Your task to perform on an android device: Show me the alarms in the clock app Image 0: 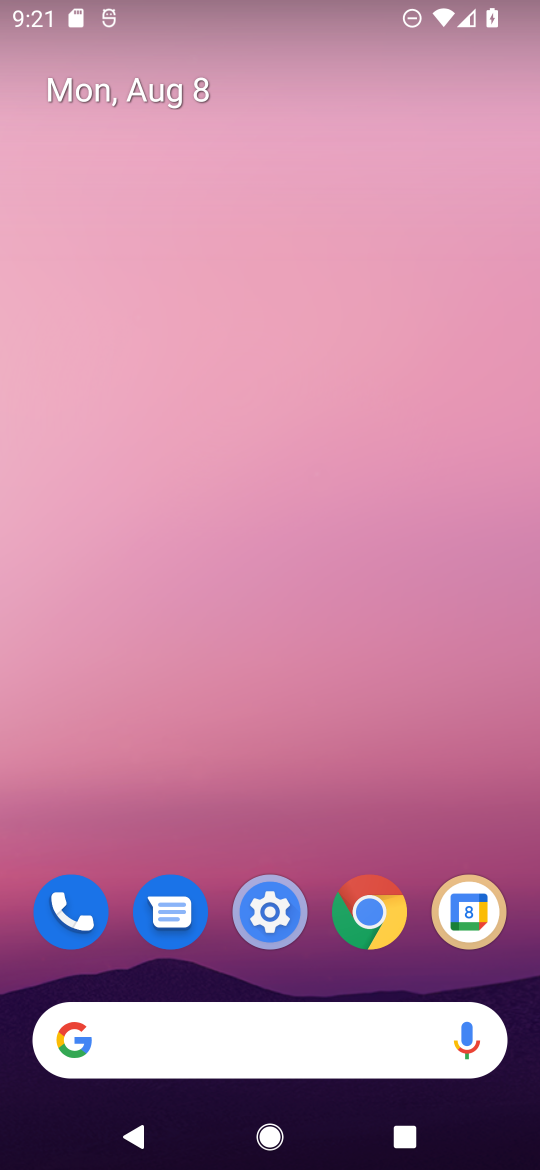
Step 0: drag from (429, 971) to (322, 447)
Your task to perform on an android device: Show me the alarms in the clock app Image 1: 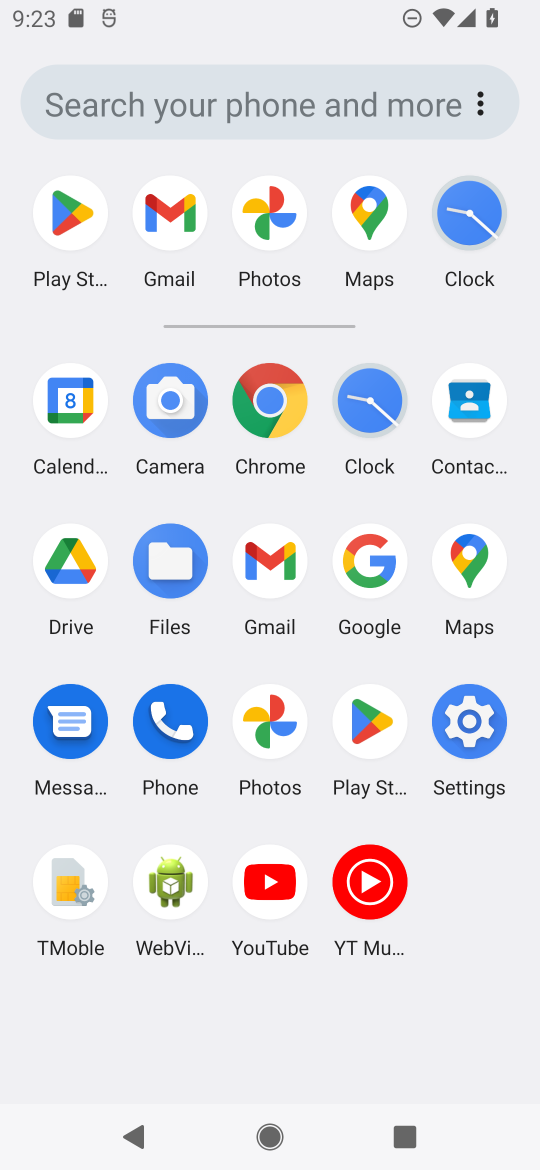
Step 1: click (366, 414)
Your task to perform on an android device: Show me the alarms in the clock app Image 2: 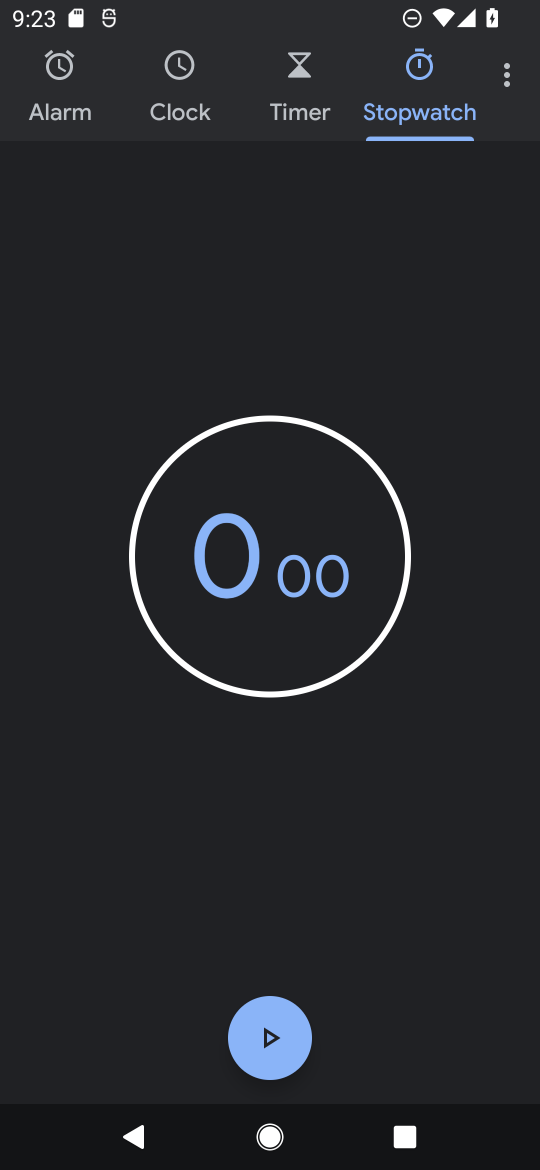
Step 2: click (72, 85)
Your task to perform on an android device: Show me the alarms in the clock app Image 3: 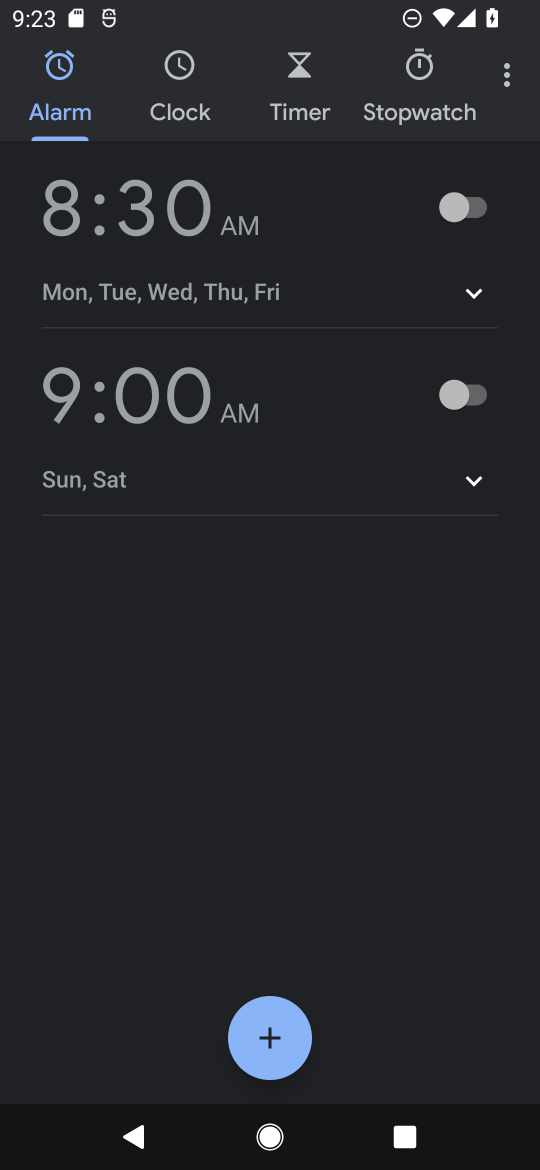
Step 3: task complete